Your task to perform on an android device: Go to Yahoo.com Image 0: 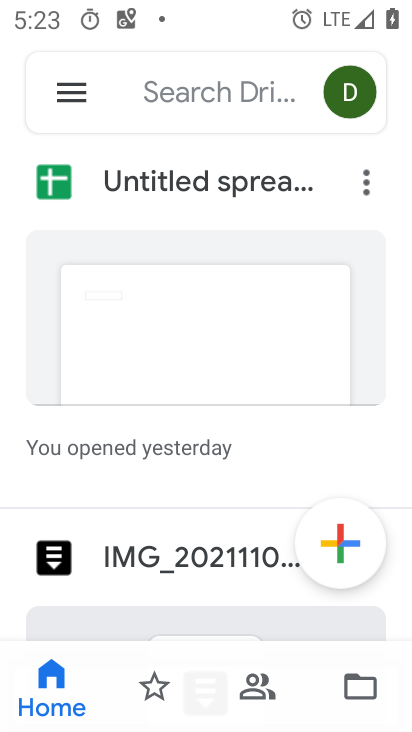
Step 0: press home button
Your task to perform on an android device: Go to Yahoo.com Image 1: 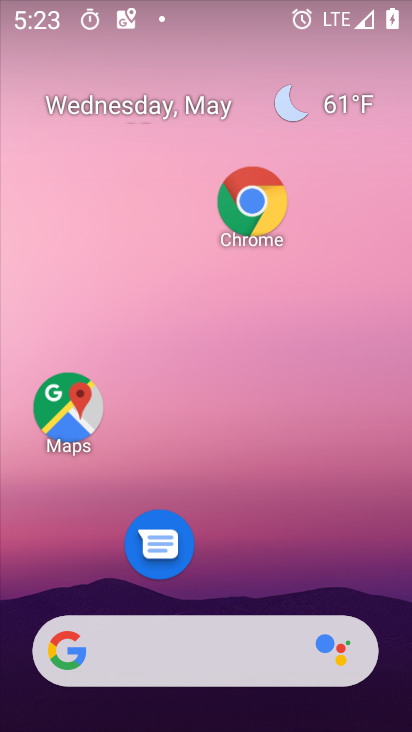
Step 1: drag from (201, 619) to (218, 288)
Your task to perform on an android device: Go to Yahoo.com Image 2: 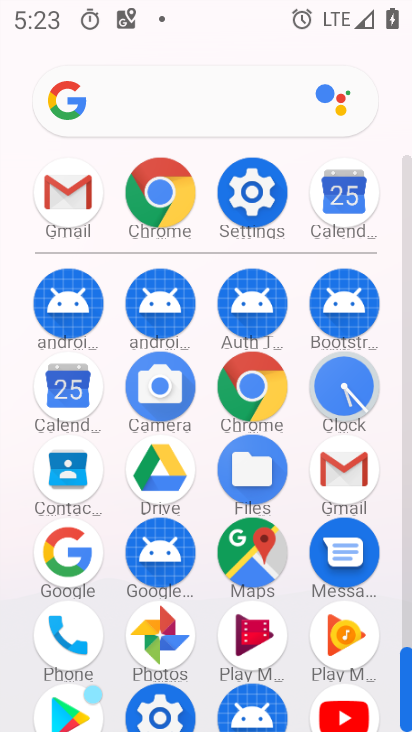
Step 2: click (262, 387)
Your task to perform on an android device: Go to Yahoo.com Image 3: 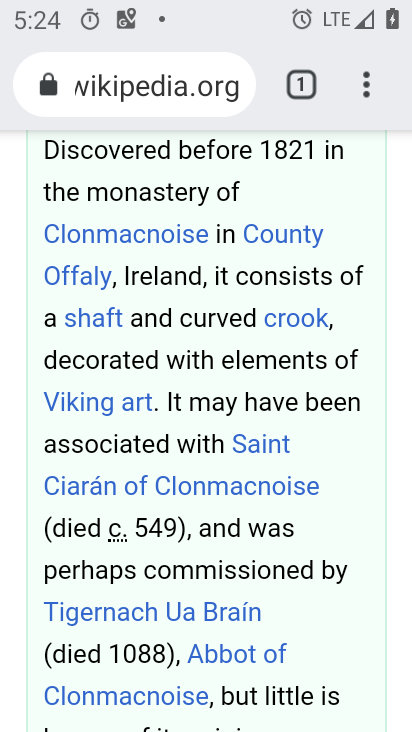
Step 3: click (296, 94)
Your task to perform on an android device: Go to Yahoo.com Image 4: 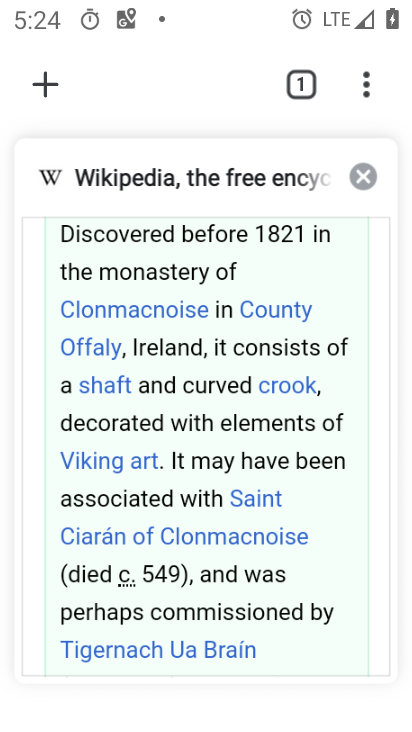
Step 4: click (357, 184)
Your task to perform on an android device: Go to Yahoo.com Image 5: 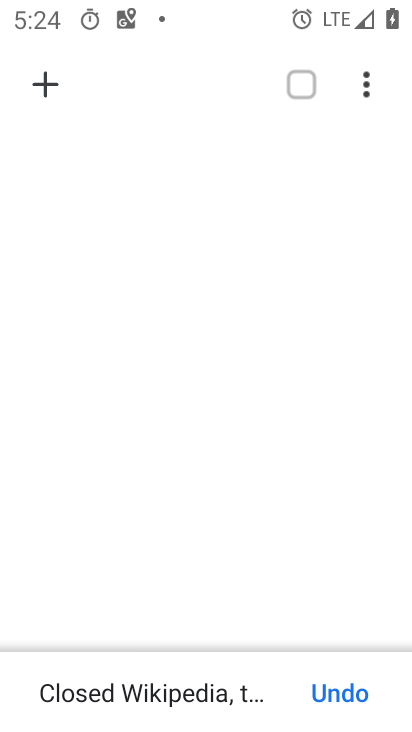
Step 5: click (50, 85)
Your task to perform on an android device: Go to Yahoo.com Image 6: 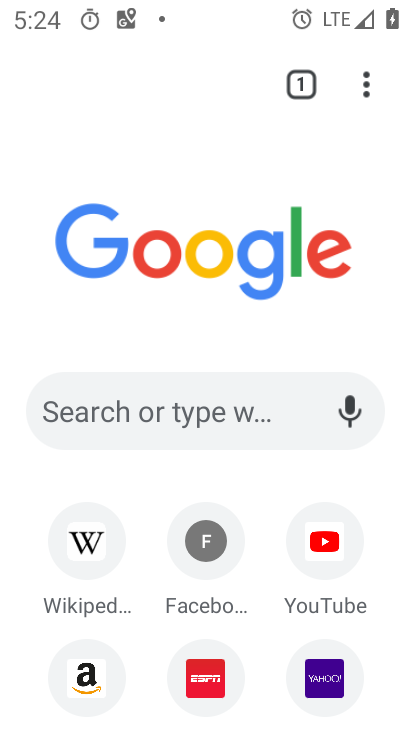
Step 6: click (336, 677)
Your task to perform on an android device: Go to Yahoo.com Image 7: 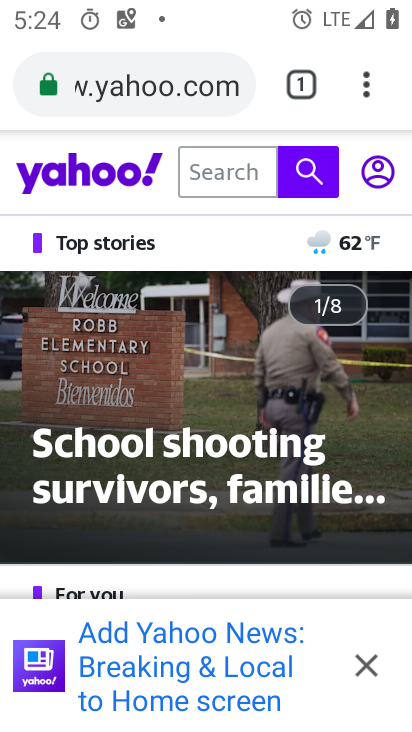
Step 7: task complete